Your task to perform on an android device: Go to Google maps Image 0: 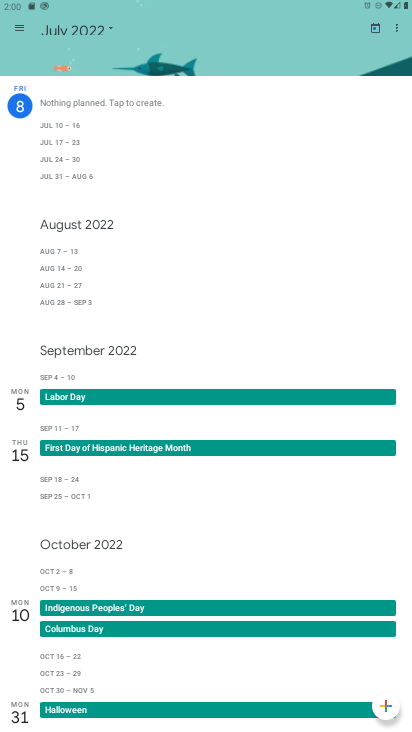
Step 0: press home button
Your task to perform on an android device: Go to Google maps Image 1: 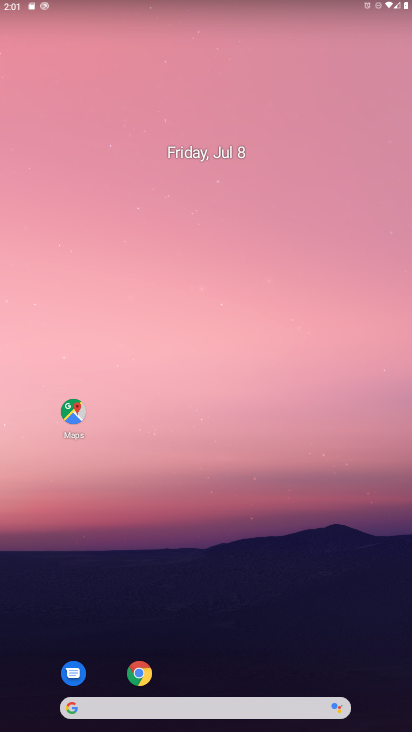
Step 1: click (66, 417)
Your task to perform on an android device: Go to Google maps Image 2: 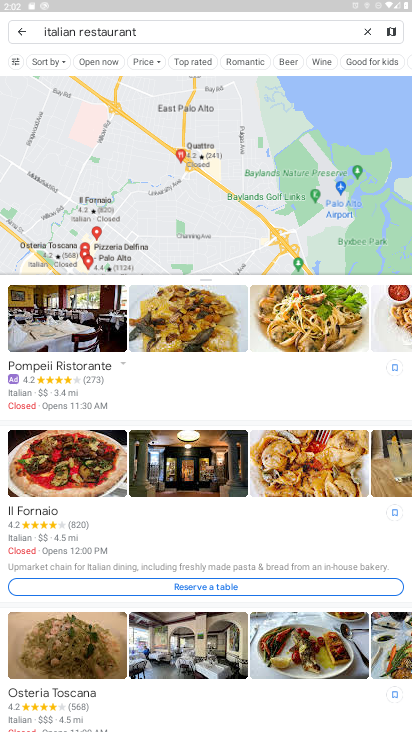
Step 2: click (18, 27)
Your task to perform on an android device: Go to Google maps Image 3: 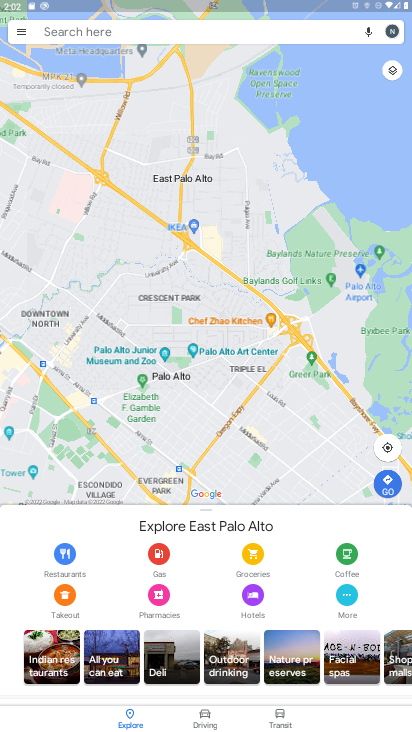
Step 3: task complete